Your task to perform on an android device: Show me popular games on the Play Store Image 0: 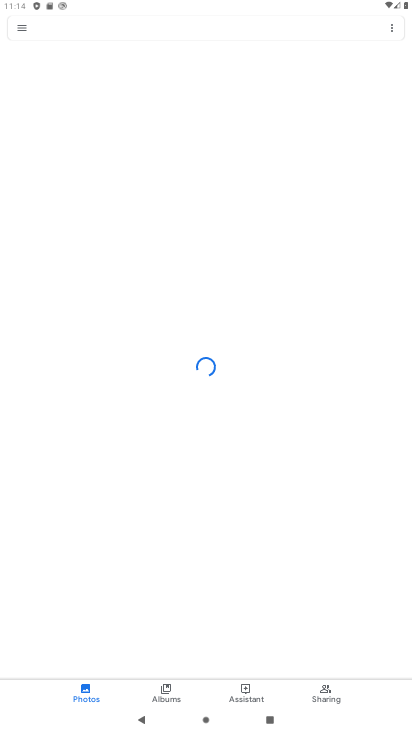
Step 0: press back button
Your task to perform on an android device: Show me popular games on the Play Store Image 1: 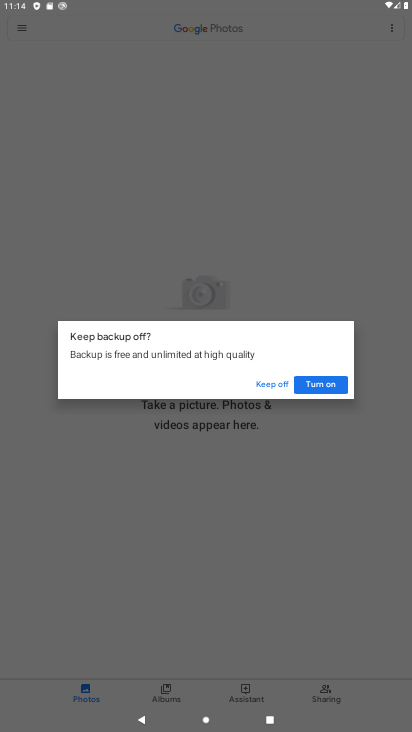
Step 1: press home button
Your task to perform on an android device: Show me popular games on the Play Store Image 2: 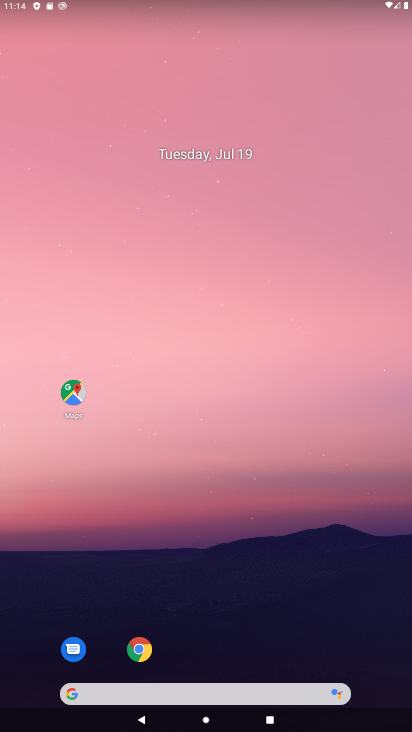
Step 2: drag from (257, 638) to (297, 181)
Your task to perform on an android device: Show me popular games on the Play Store Image 3: 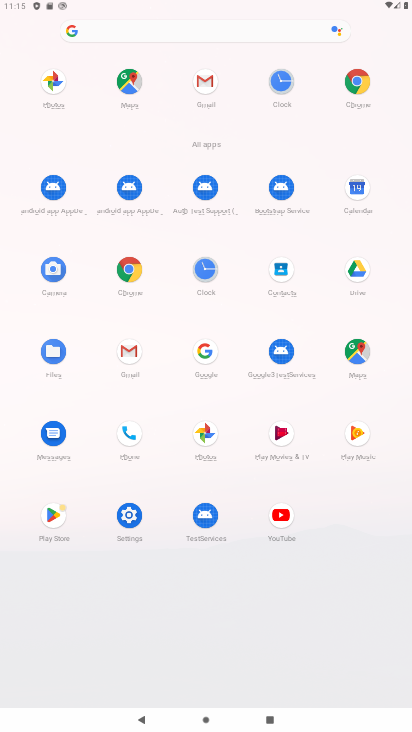
Step 3: click (52, 517)
Your task to perform on an android device: Show me popular games on the Play Store Image 4: 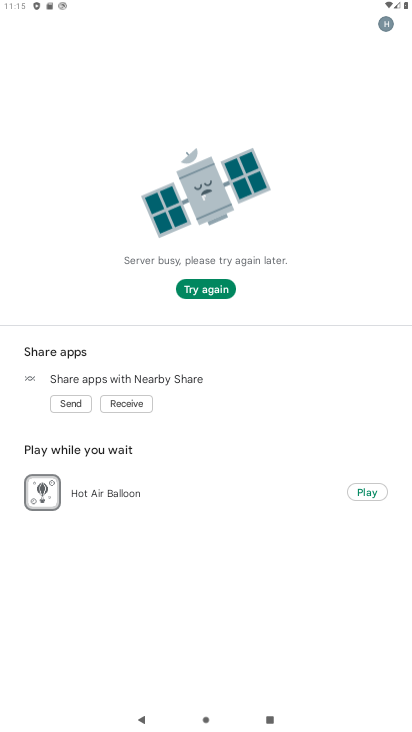
Step 4: task complete